Your task to perform on an android device: Open Reddit.com Image 0: 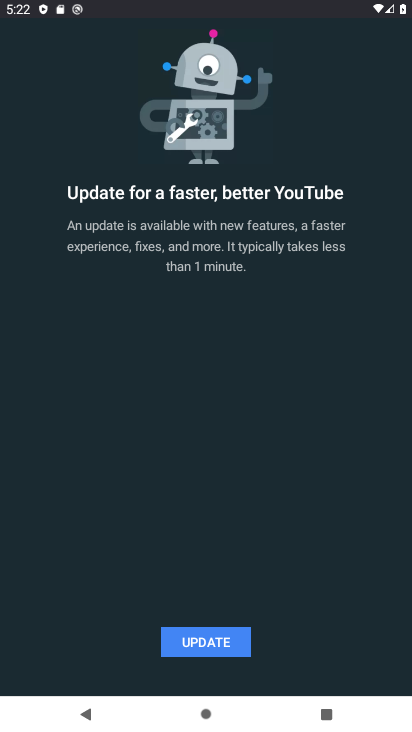
Step 0: press home button
Your task to perform on an android device: Open Reddit.com Image 1: 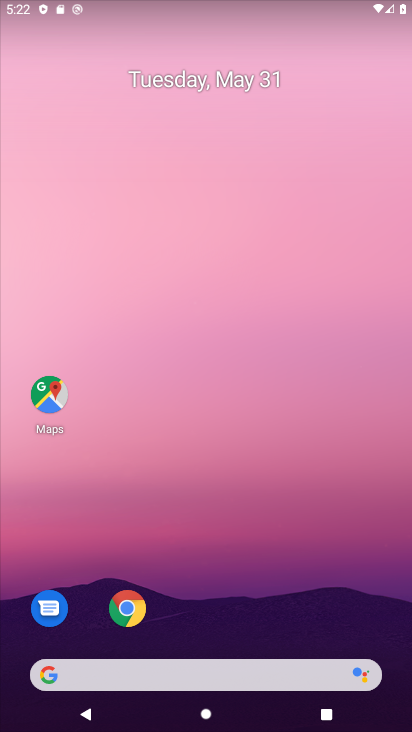
Step 1: drag from (275, 659) to (254, 0)
Your task to perform on an android device: Open Reddit.com Image 2: 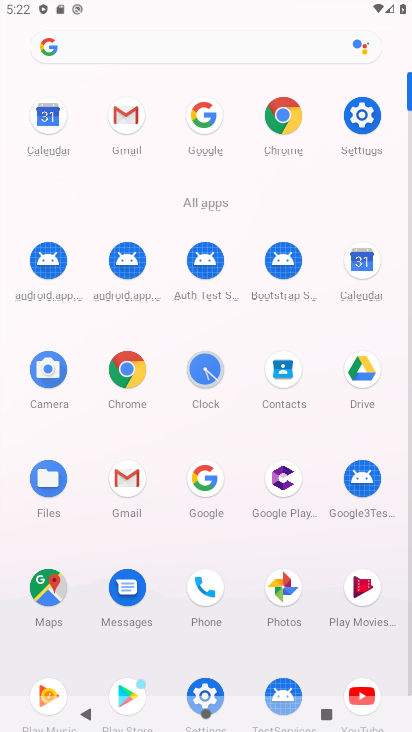
Step 2: click (207, 113)
Your task to perform on an android device: Open Reddit.com Image 3: 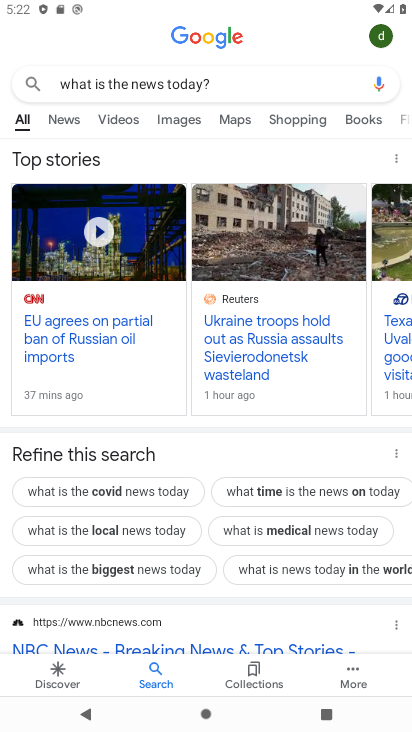
Step 3: type "reddit.com"
Your task to perform on an android device: Open Reddit.com Image 4: 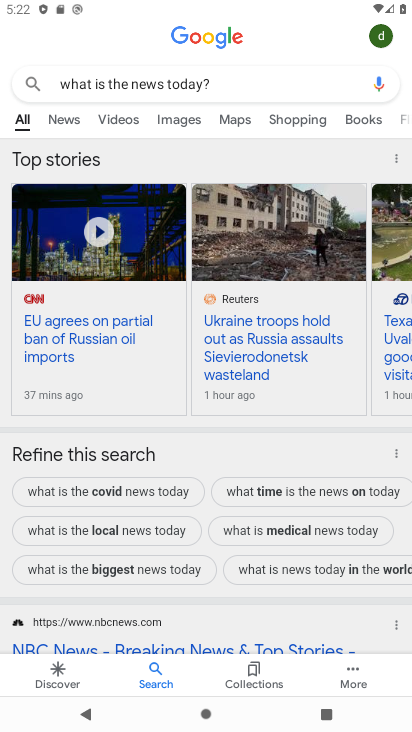
Step 4: click (262, 88)
Your task to perform on an android device: Open Reddit.com Image 5: 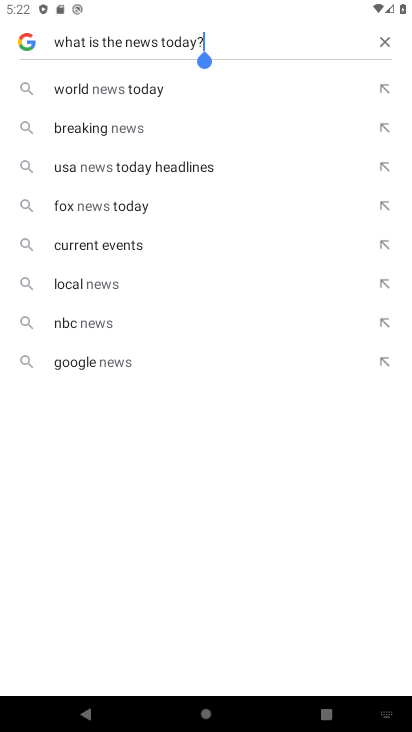
Step 5: click (381, 40)
Your task to perform on an android device: Open Reddit.com Image 6: 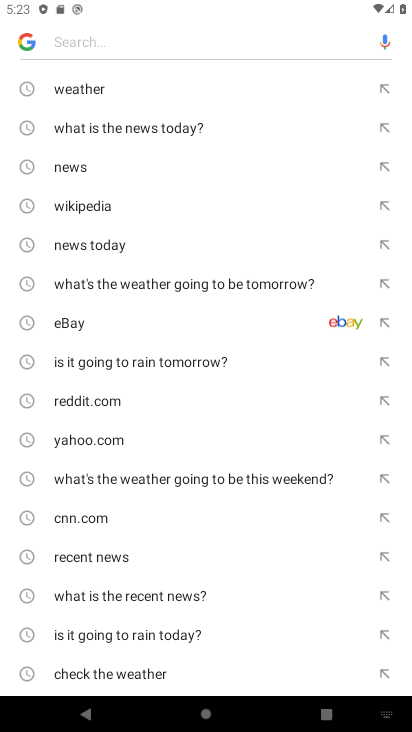
Step 6: click (95, 415)
Your task to perform on an android device: Open Reddit.com Image 7: 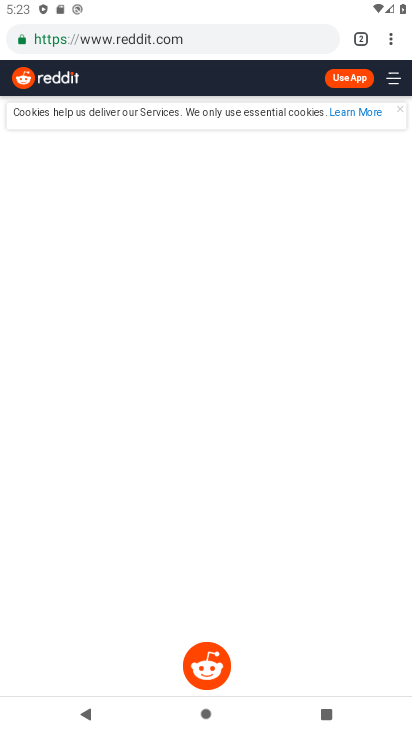
Step 7: task complete